Your task to perform on an android device: turn on the 12-hour format for clock Image 0: 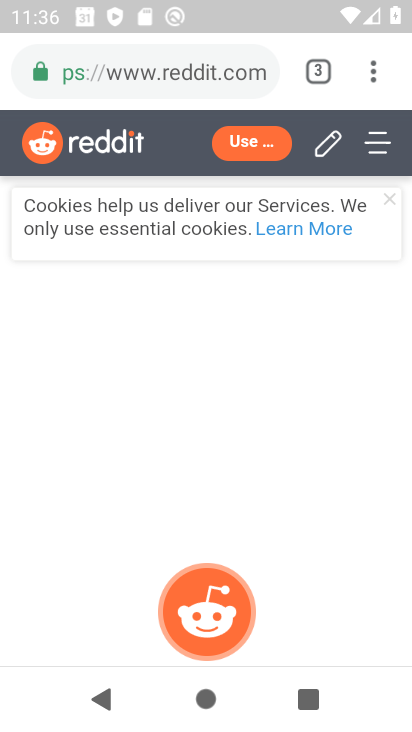
Step 0: click (252, 504)
Your task to perform on an android device: turn on the 12-hour format for clock Image 1: 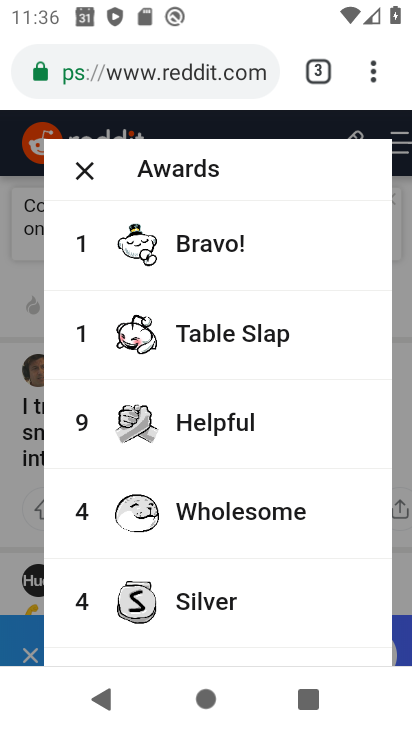
Step 1: press home button
Your task to perform on an android device: turn on the 12-hour format for clock Image 2: 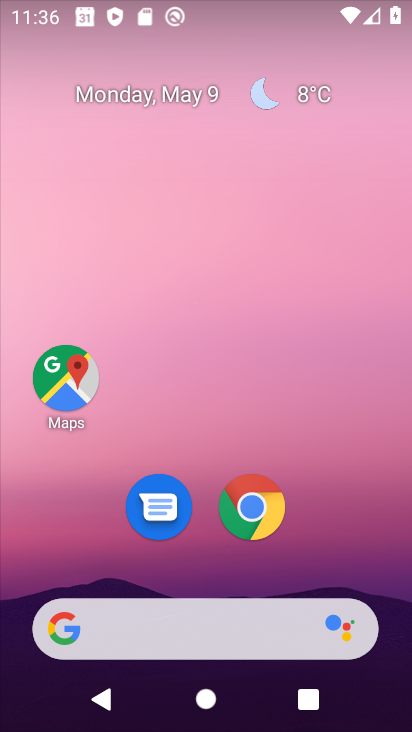
Step 2: drag from (319, 573) to (256, 164)
Your task to perform on an android device: turn on the 12-hour format for clock Image 3: 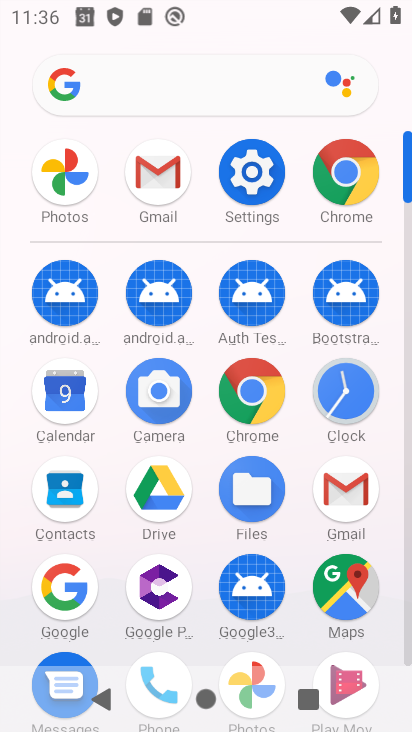
Step 3: click (353, 386)
Your task to perform on an android device: turn on the 12-hour format for clock Image 4: 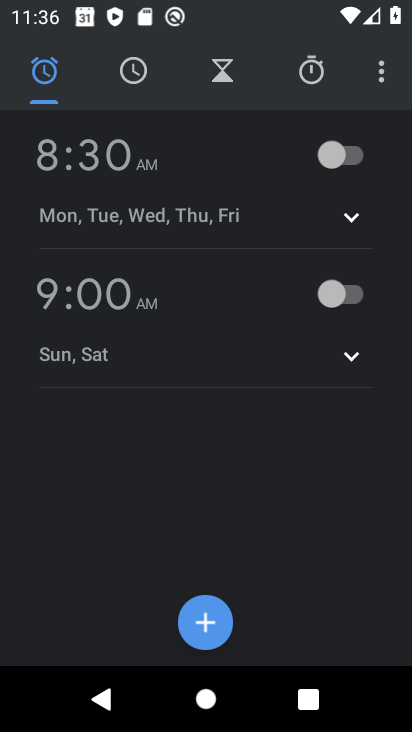
Step 4: click (384, 81)
Your task to perform on an android device: turn on the 12-hour format for clock Image 5: 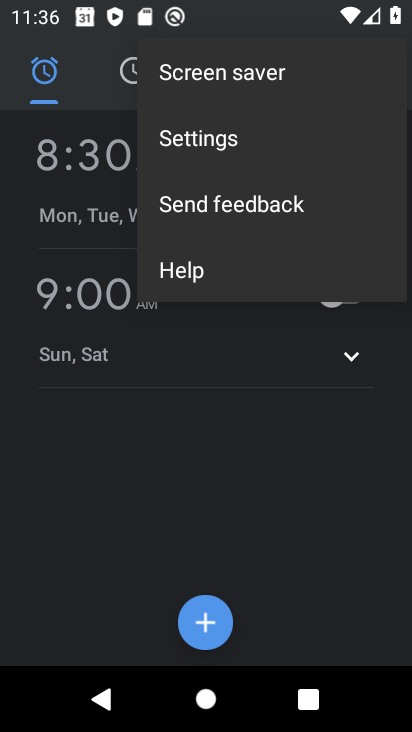
Step 5: click (192, 138)
Your task to perform on an android device: turn on the 12-hour format for clock Image 6: 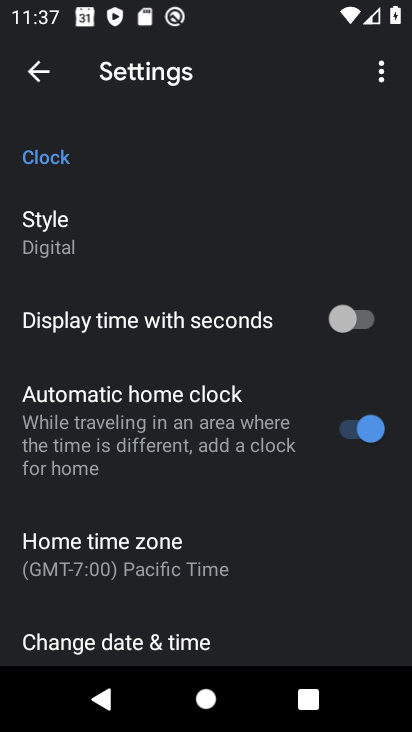
Step 6: drag from (199, 514) to (167, 303)
Your task to perform on an android device: turn on the 12-hour format for clock Image 7: 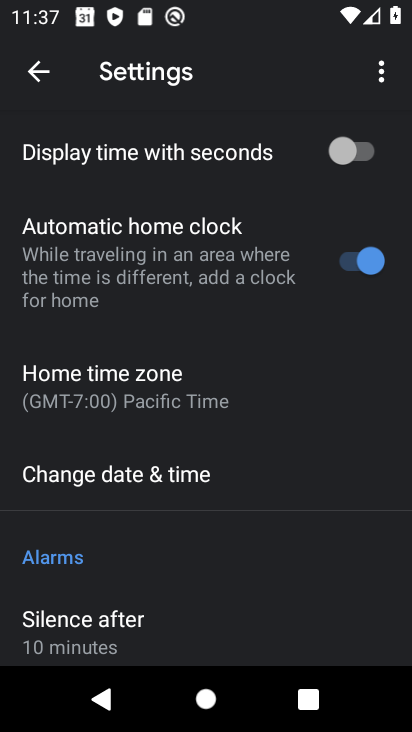
Step 7: click (169, 467)
Your task to perform on an android device: turn on the 12-hour format for clock Image 8: 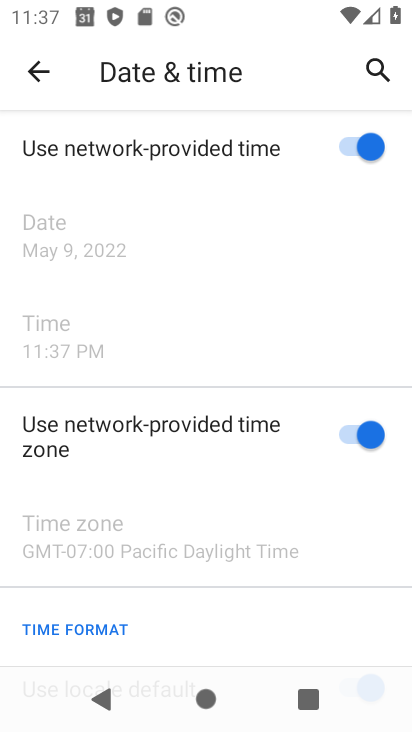
Step 8: task complete